Your task to perform on an android device: Open Google Chrome Image 0: 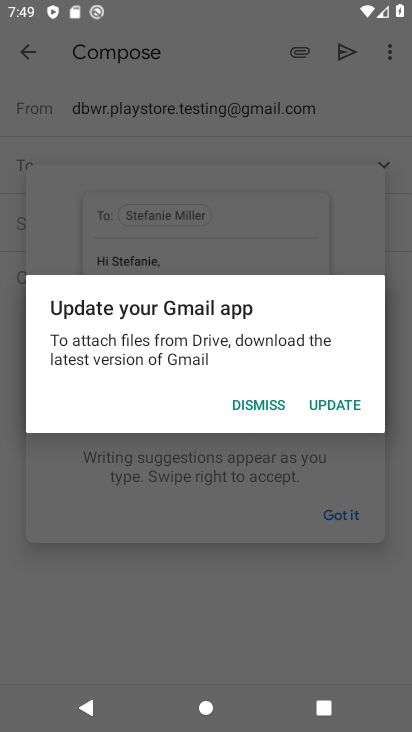
Step 0: press home button
Your task to perform on an android device: Open Google Chrome Image 1: 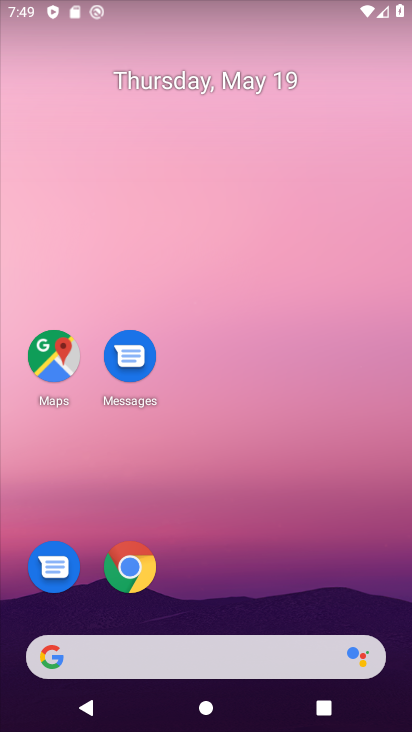
Step 1: click (127, 553)
Your task to perform on an android device: Open Google Chrome Image 2: 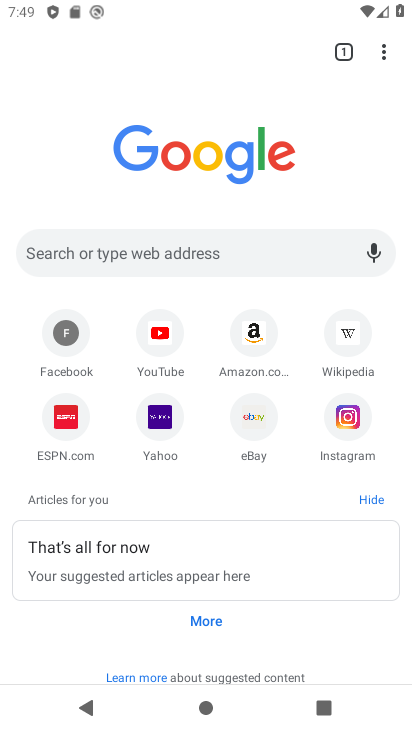
Step 2: task complete